Your task to perform on an android device: open wifi settings Image 0: 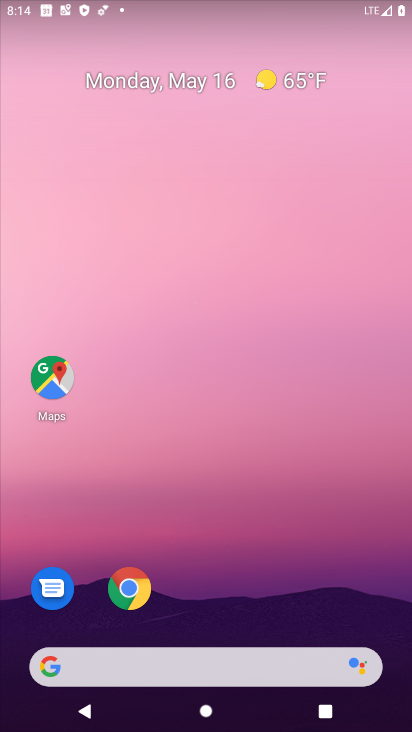
Step 0: drag from (290, 554) to (191, 0)
Your task to perform on an android device: open wifi settings Image 1: 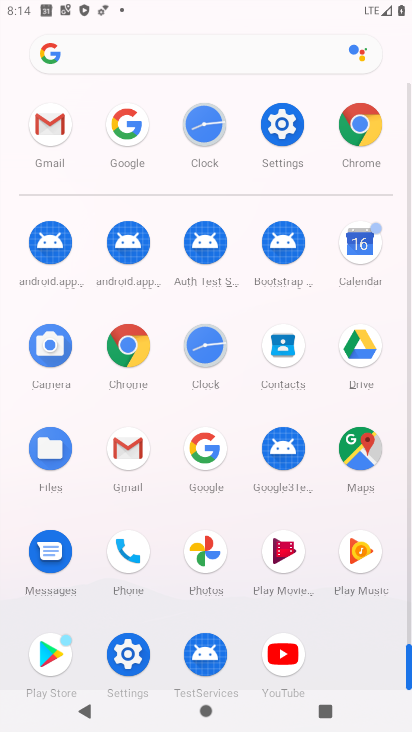
Step 1: drag from (16, 497) to (13, 239)
Your task to perform on an android device: open wifi settings Image 2: 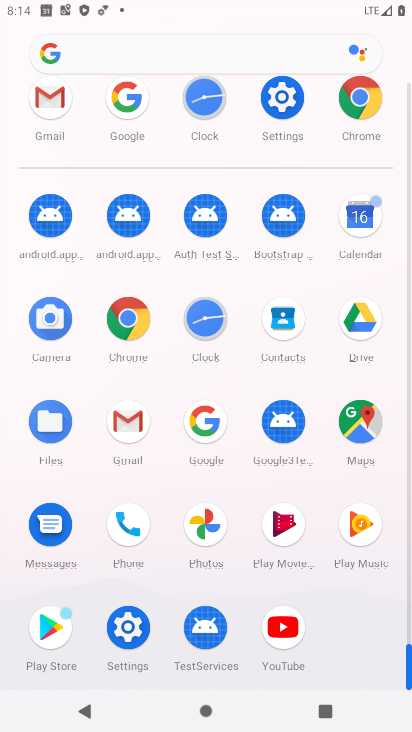
Step 2: click (123, 623)
Your task to perform on an android device: open wifi settings Image 3: 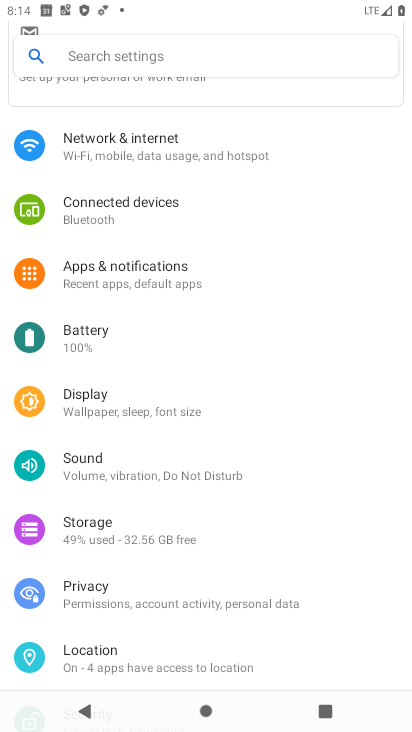
Step 3: drag from (262, 180) to (277, 551)
Your task to perform on an android device: open wifi settings Image 4: 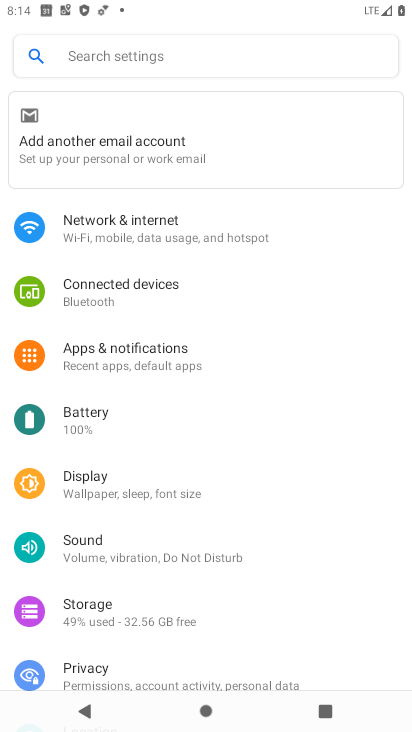
Step 4: drag from (281, 521) to (283, 210)
Your task to perform on an android device: open wifi settings Image 5: 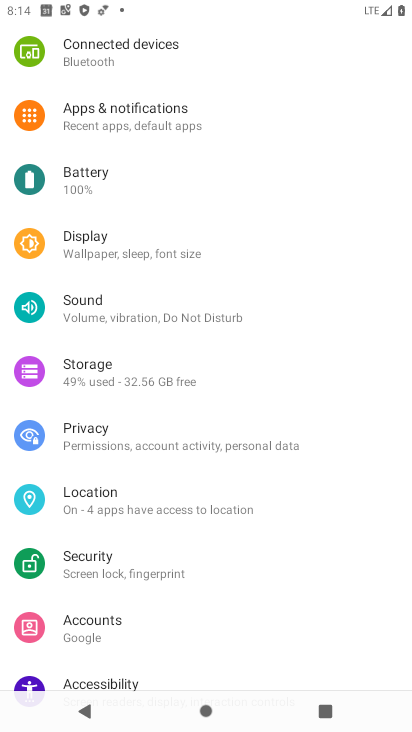
Step 5: drag from (283, 139) to (296, 543)
Your task to perform on an android device: open wifi settings Image 6: 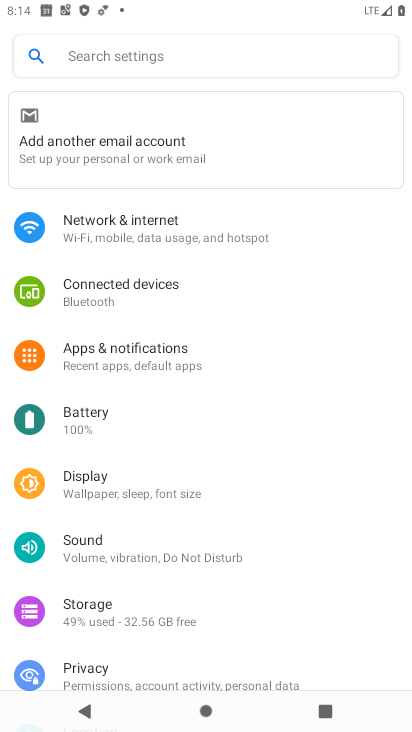
Step 6: drag from (205, 560) to (235, 248)
Your task to perform on an android device: open wifi settings Image 7: 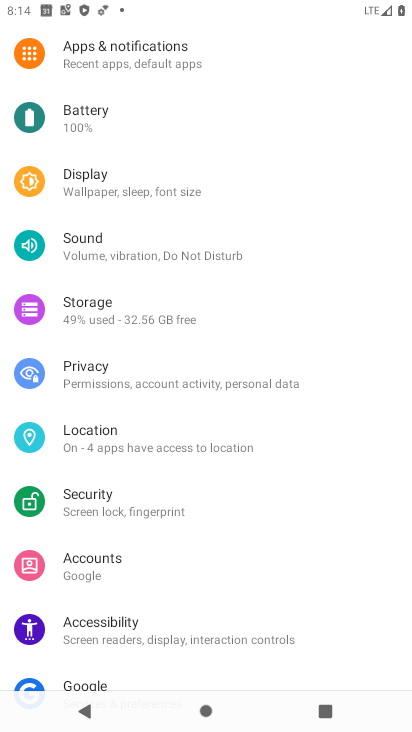
Step 7: drag from (228, 554) to (248, 181)
Your task to perform on an android device: open wifi settings Image 8: 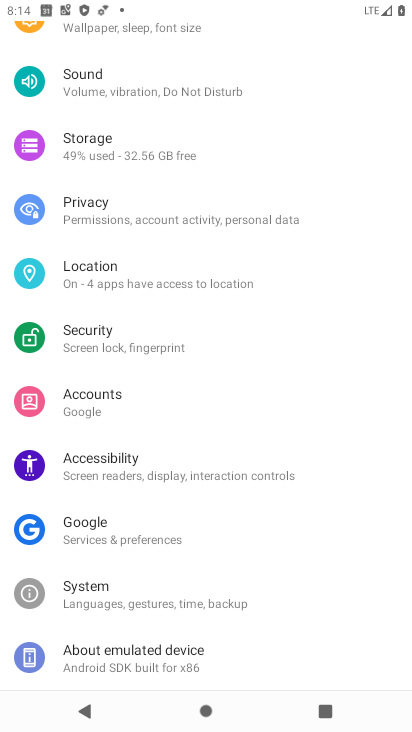
Step 8: drag from (268, 120) to (273, 594)
Your task to perform on an android device: open wifi settings Image 9: 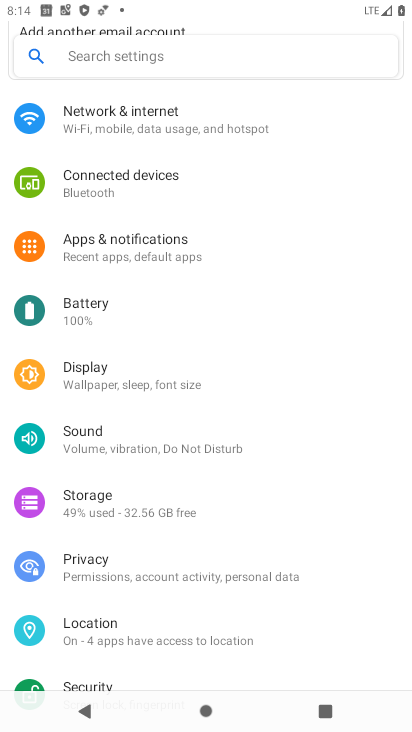
Step 9: drag from (252, 267) to (249, 566)
Your task to perform on an android device: open wifi settings Image 10: 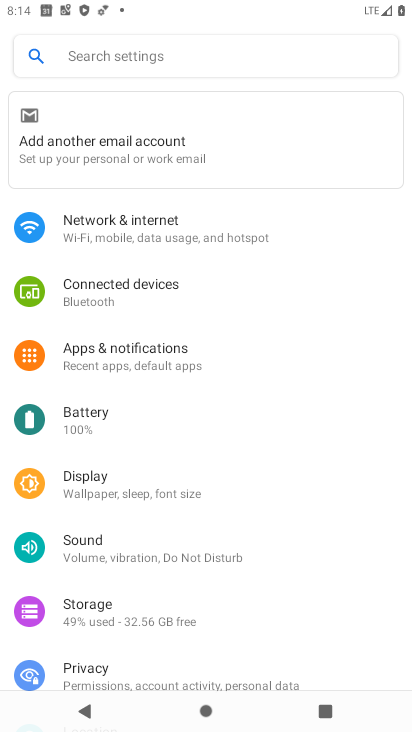
Step 10: click (192, 240)
Your task to perform on an android device: open wifi settings Image 11: 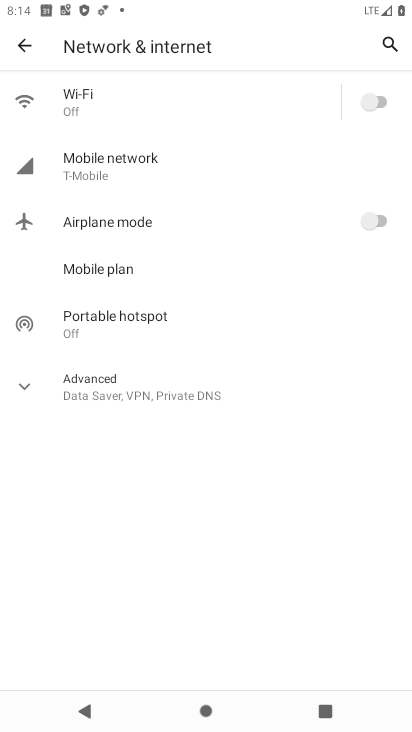
Step 11: click (104, 76)
Your task to perform on an android device: open wifi settings Image 12: 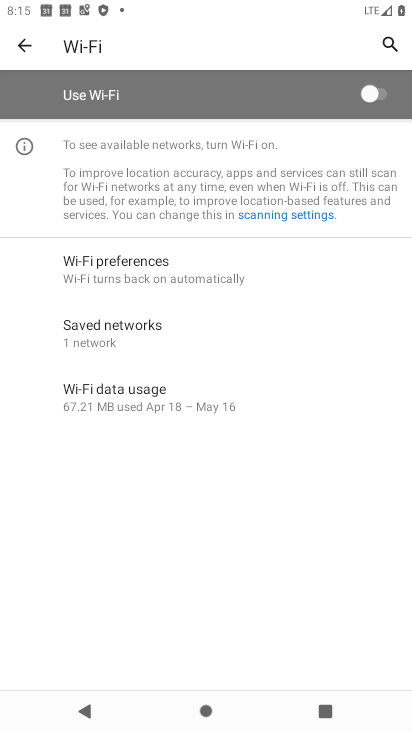
Step 12: task complete